Your task to perform on an android device: Go to location settings Image 0: 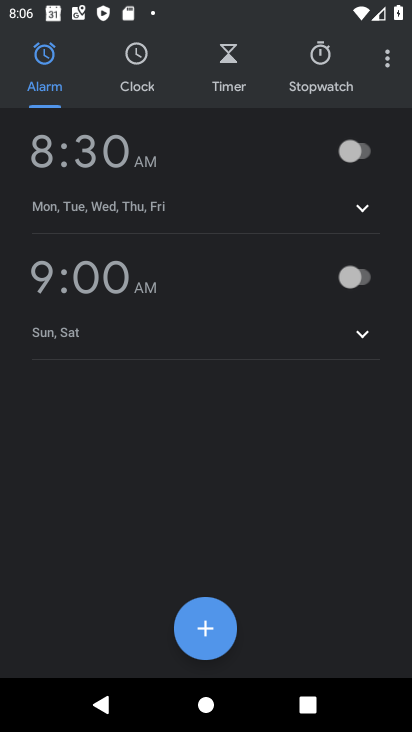
Step 0: press home button
Your task to perform on an android device: Go to location settings Image 1: 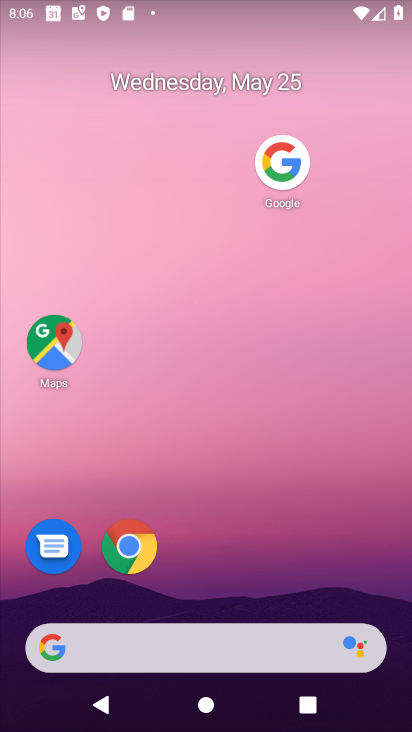
Step 1: drag from (198, 637) to (355, 163)
Your task to perform on an android device: Go to location settings Image 2: 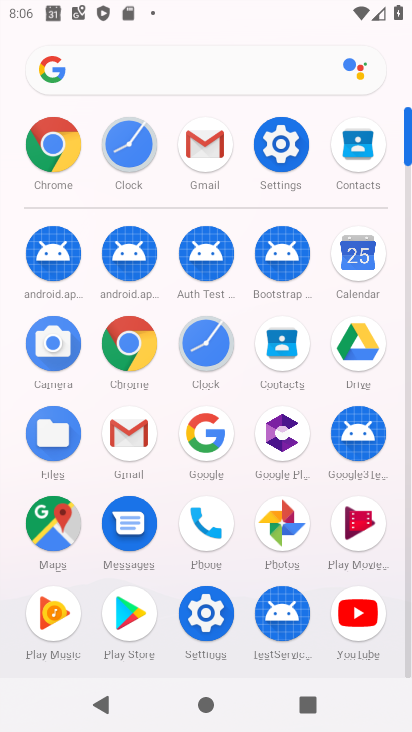
Step 2: click (283, 146)
Your task to perform on an android device: Go to location settings Image 3: 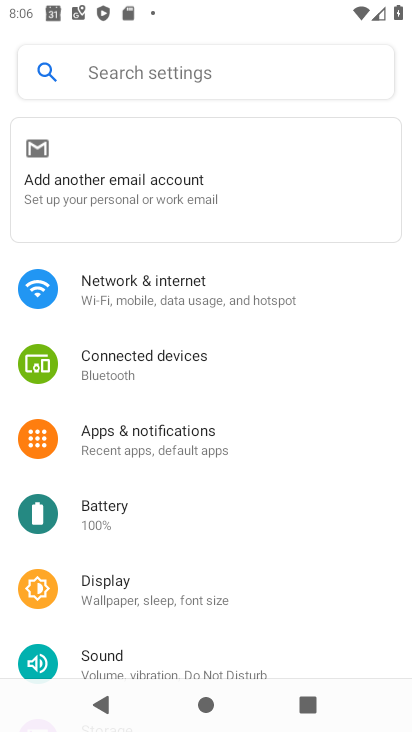
Step 3: drag from (210, 612) to (260, 467)
Your task to perform on an android device: Go to location settings Image 4: 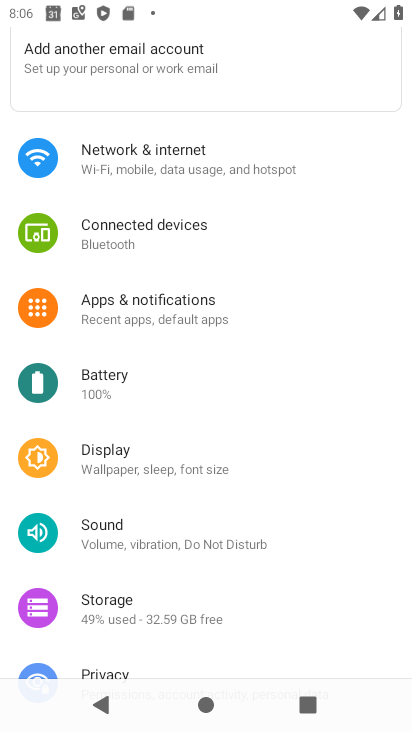
Step 4: drag from (250, 639) to (350, 260)
Your task to perform on an android device: Go to location settings Image 5: 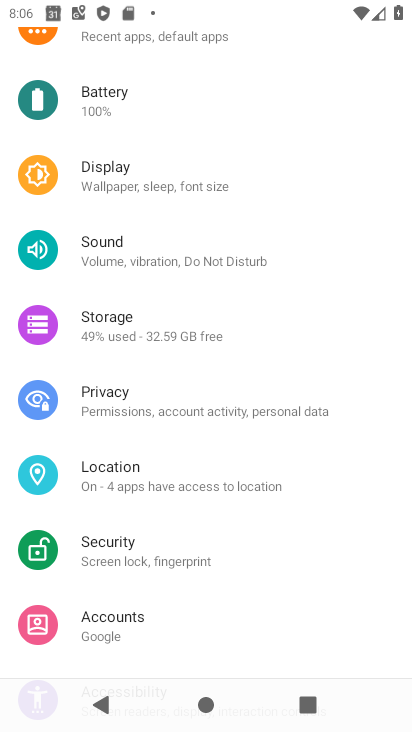
Step 5: click (145, 480)
Your task to perform on an android device: Go to location settings Image 6: 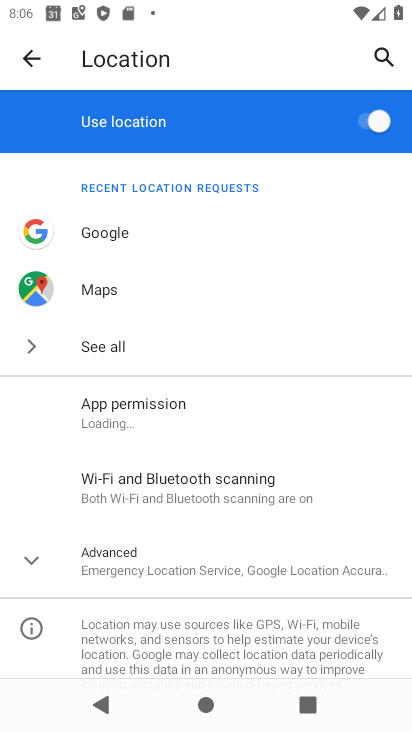
Step 6: click (105, 416)
Your task to perform on an android device: Go to location settings Image 7: 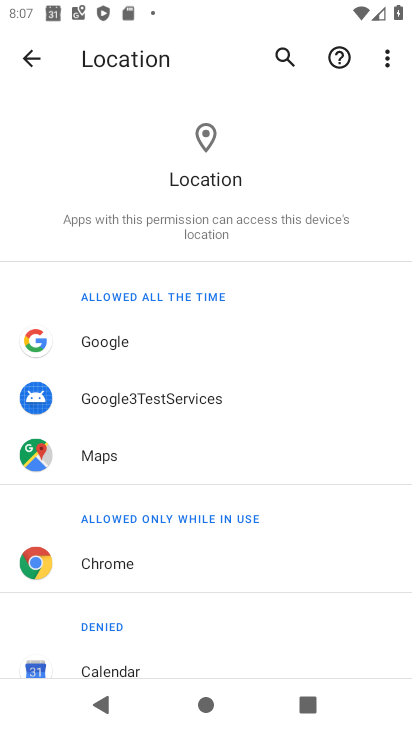
Step 7: task complete